Your task to perform on an android device: change notifications settings Image 0: 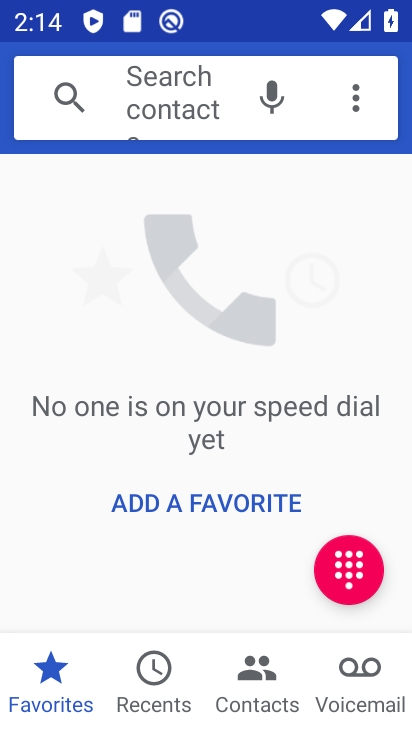
Step 0: press back button
Your task to perform on an android device: change notifications settings Image 1: 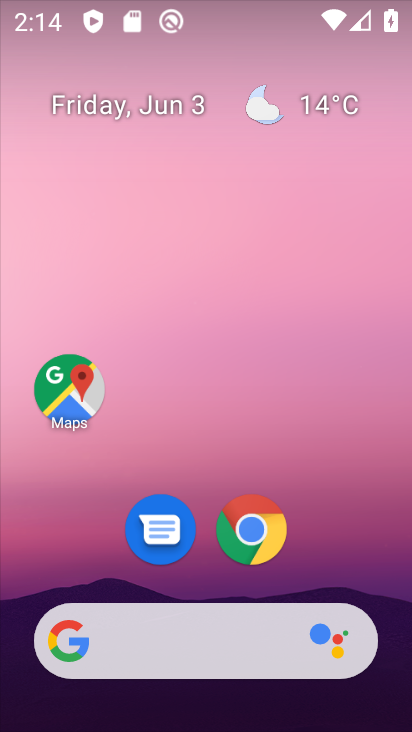
Step 1: drag from (250, 696) to (155, 22)
Your task to perform on an android device: change notifications settings Image 2: 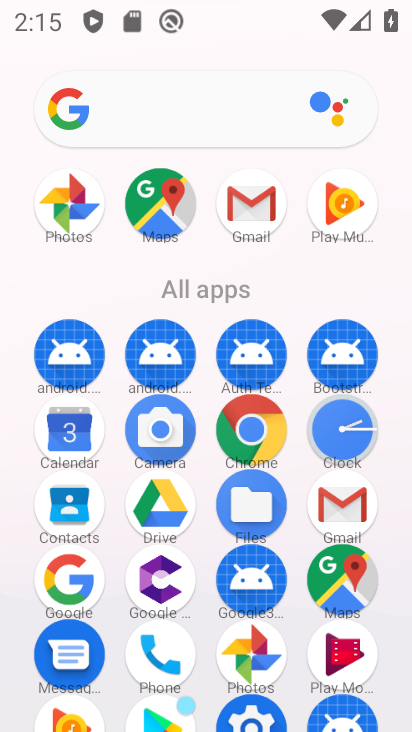
Step 2: drag from (222, 587) to (212, 241)
Your task to perform on an android device: change notifications settings Image 3: 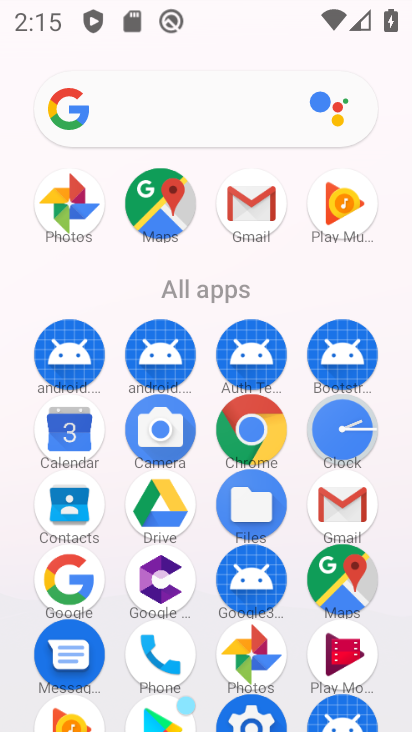
Step 3: drag from (218, 459) to (205, 187)
Your task to perform on an android device: change notifications settings Image 4: 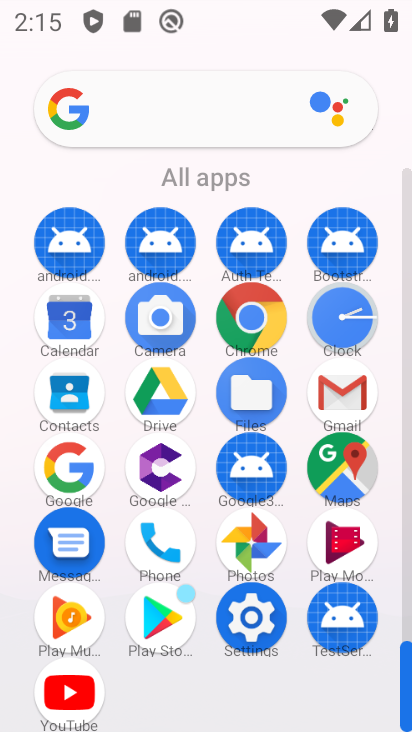
Step 4: click (239, 614)
Your task to perform on an android device: change notifications settings Image 5: 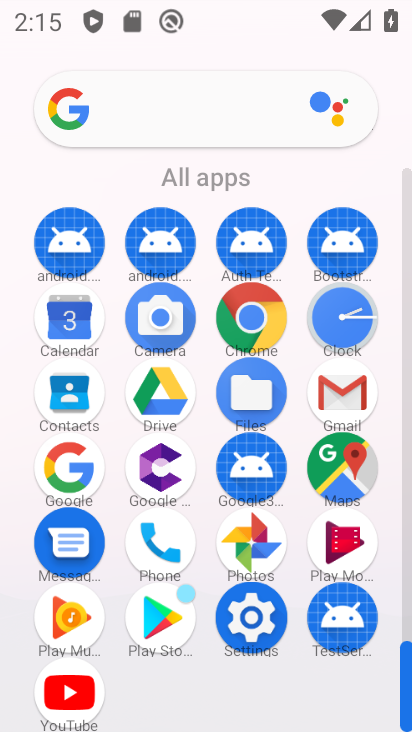
Step 5: click (239, 614)
Your task to perform on an android device: change notifications settings Image 6: 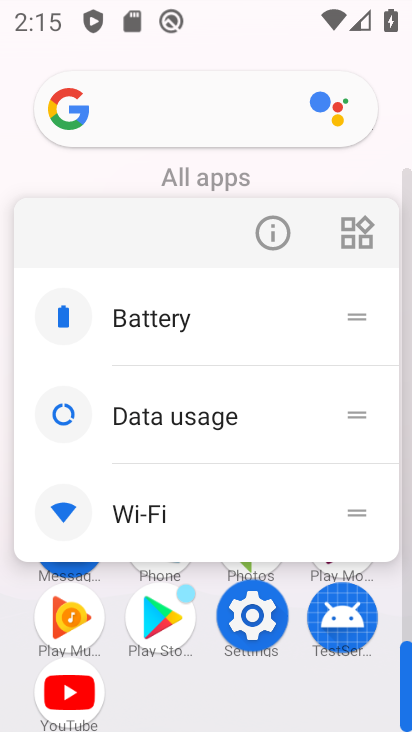
Step 6: click (252, 622)
Your task to perform on an android device: change notifications settings Image 7: 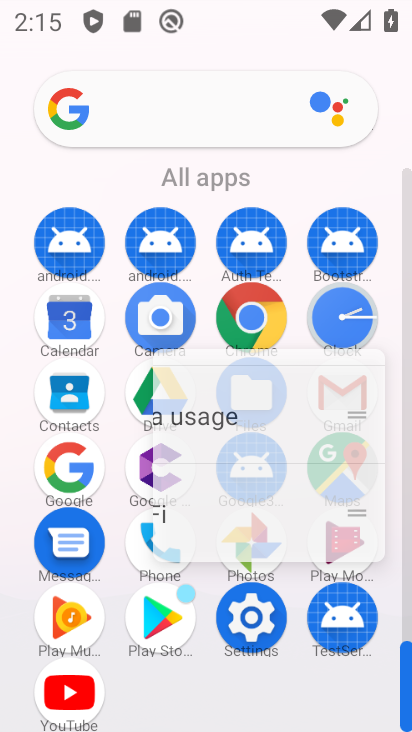
Step 7: click (252, 623)
Your task to perform on an android device: change notifications settings Image 8: 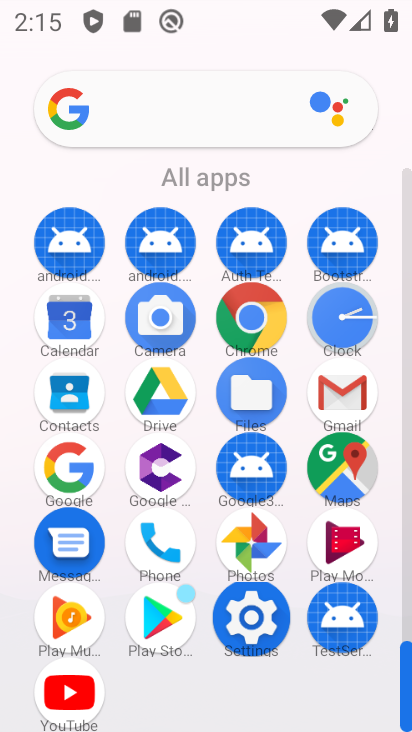
Step 8: click (253, 624)
Your task to perform on an android device: change notifications settings Image 9: 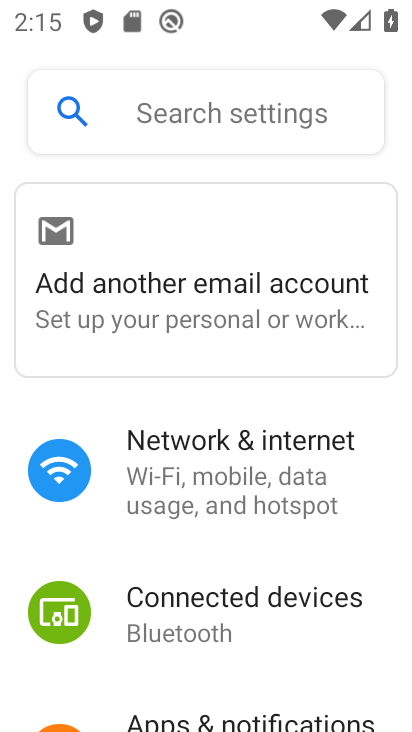
Step 9: drag from (193, 496) to (188, 264)
Your task to perform on an android device: change notifications settings Image 10: 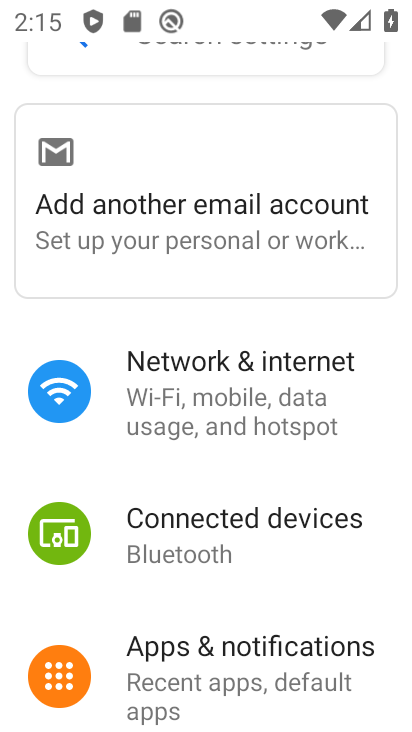
Step 10: drag from (257, 525) to (193, 122)
Your task to perform on an android device: change notifications settings Image 11: 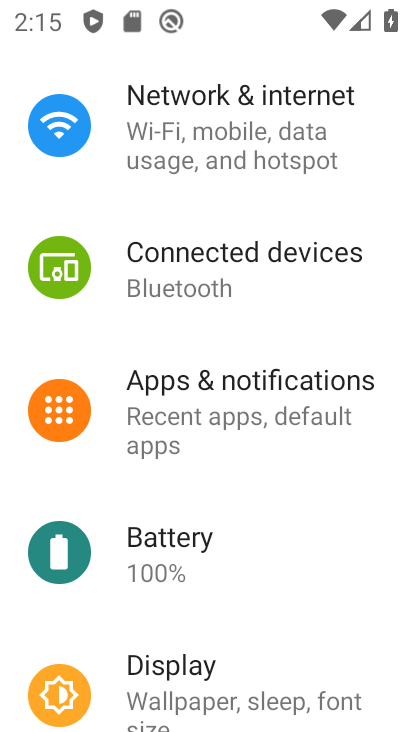
Step 11: drag from (229, 387) to (164, 75)
Your task to perform on an android device: change notifications settings Image 12: 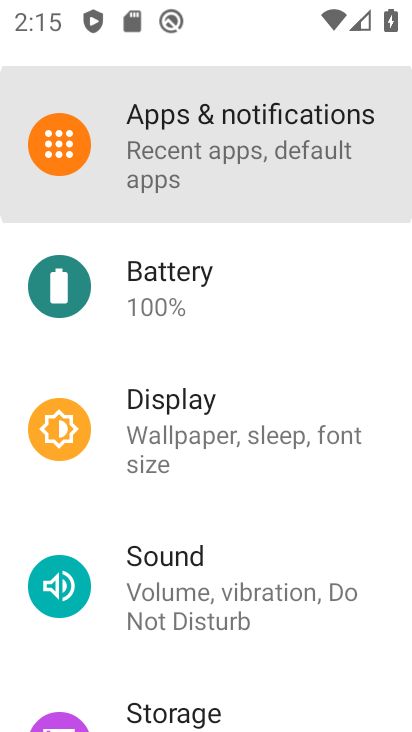
Step 12: drag from (228, 458) to (154, 94)
Your task to perform on an android device: change notifications settings Image 13: 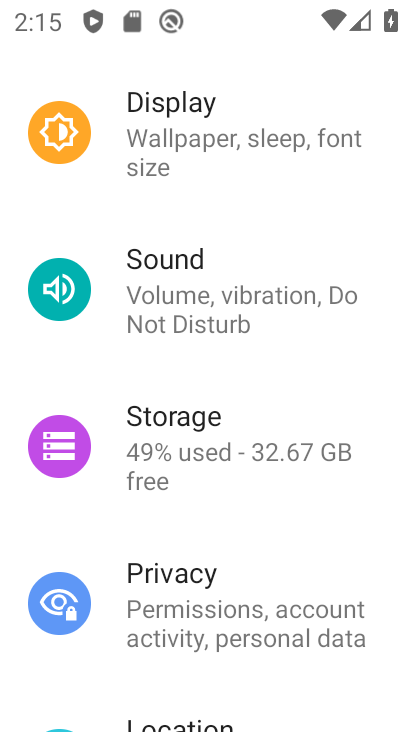
Step 13: drag from (172, 506) to (141, 107)
Your task to perform on an android device: change notifications settings Image 14: 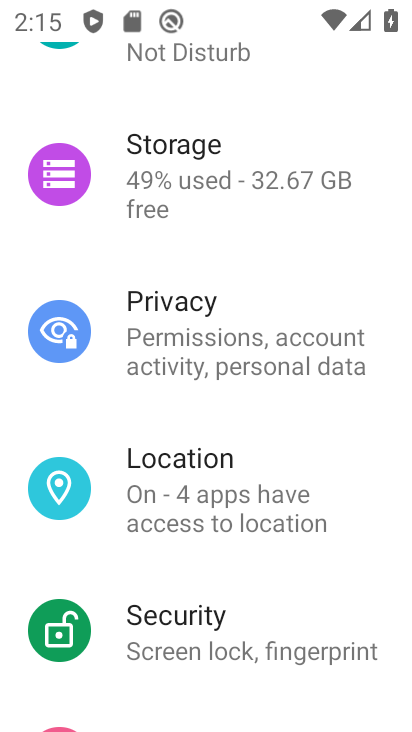
Step 14: drag from (227, 454) to (154, 106)
Your task to perform on an android device: change notifications settings Image 15: 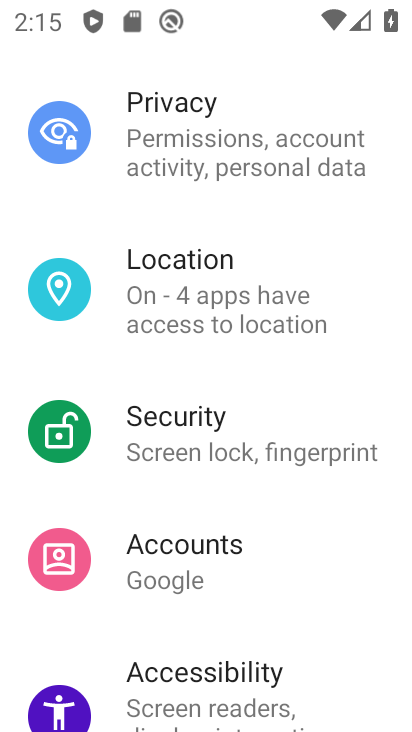
Step 15: drag from (184, 203) to (149, 24)
Your task to perform on an android device: change notifications settings Image 16: 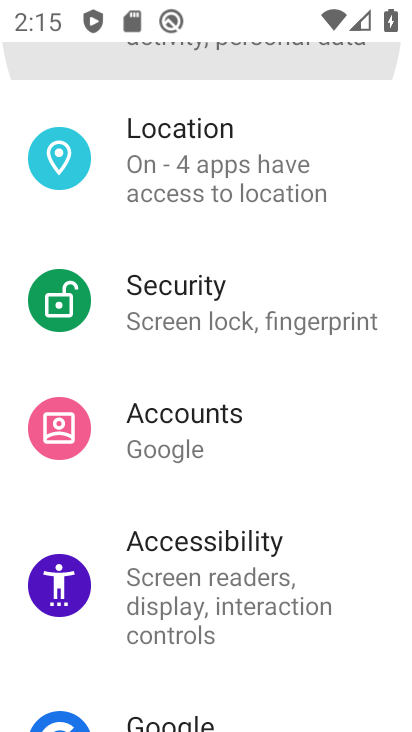
Step 16: drag from (196, 453) to (134, 166)
Your task to perform on an android device: change notifications settings Image 17: 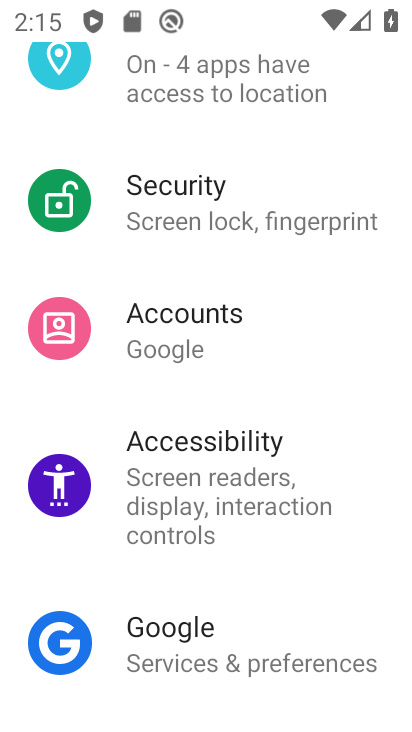
Step 17: drag from (171, 233) to (215, 390)
Your task to perform on an android device: change notifications settings Image 18: 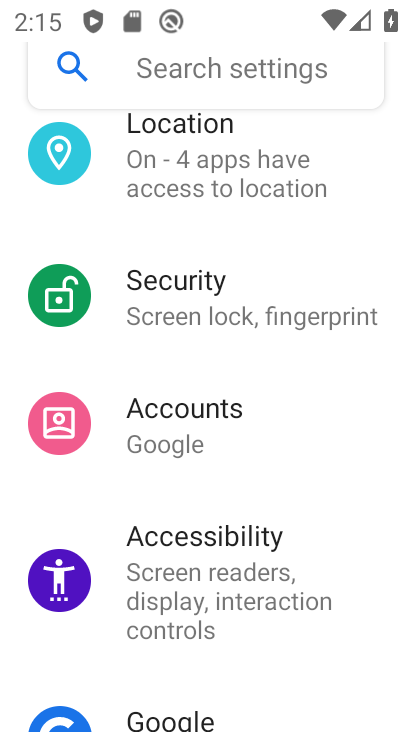
Step 18: click (200, 393)
Your task to perform on an android device: change notifications settings Image 19: 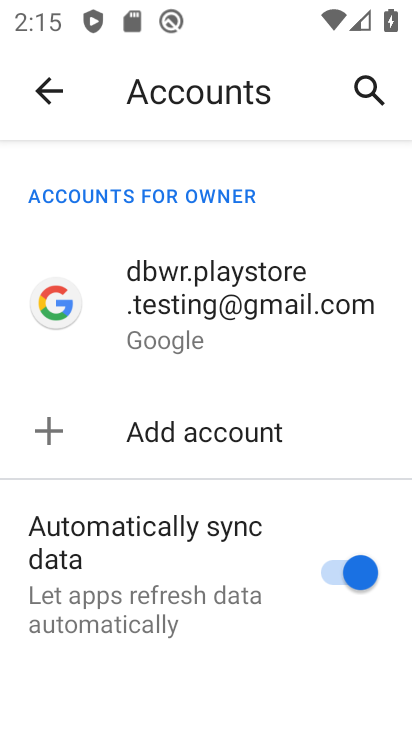
Step 19: click (27, 85)
Your task to perform on an android device: change notifications settings Image 20: 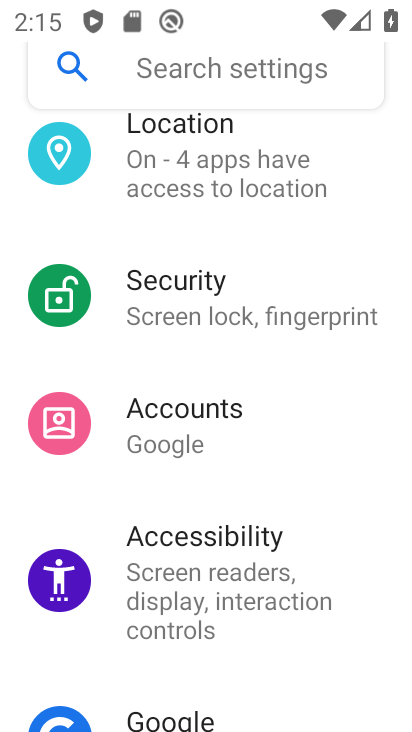
Step 20: drag from (147, 253) to (205, 558)
Your task to perform on an android device: change notifications settings Image 21: 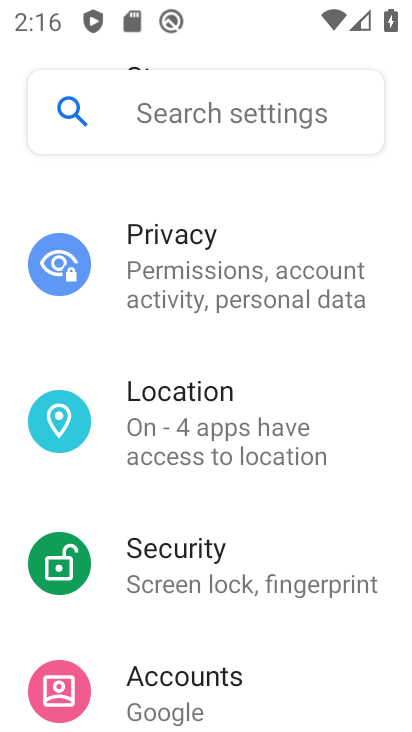
Step 21: drag from (208, 332) to (278, 605)
Your task to perform on an android device: change notifications settings Image 22: 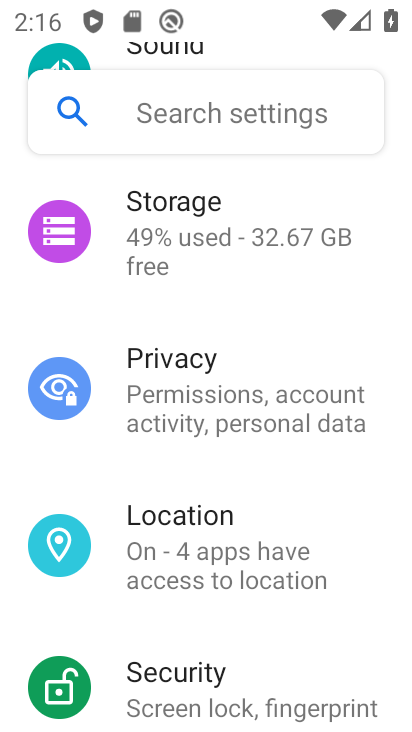
Step 22: drag from (166, 273) to (239, 566)
Your task to perform on an android device: change notifications settings Image 23: 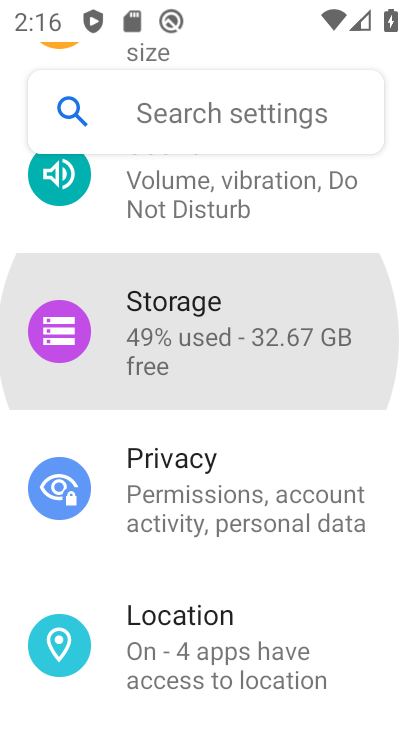
Step 23: drag from (169, 311) to (185, 544)
Your task to perform on an android device: change notifications settings Image 24: 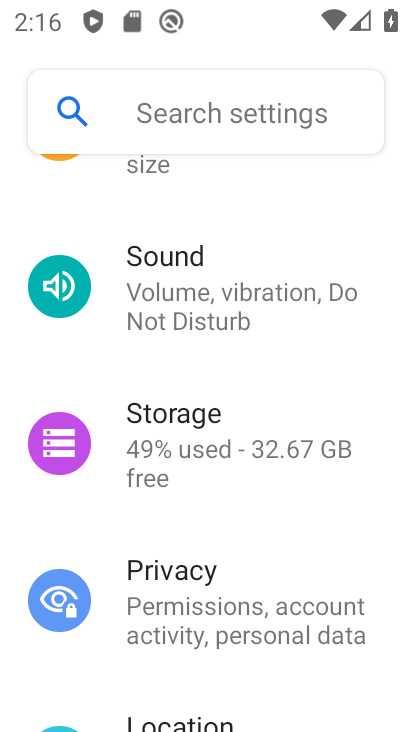
Step 24: drag from (153, 335) to (238, 628)
Your task to perform on an android device: change notifications settings Image 25: 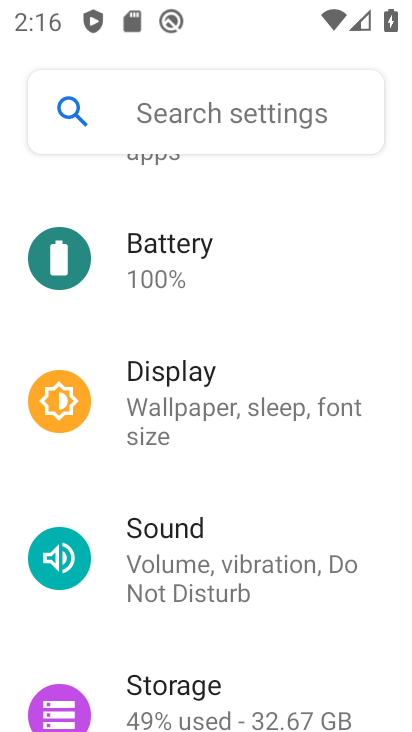
Step 25: drag from (172, 302) to (300, 622)
Your task to perform on an android device: change notifications settings Image 26: 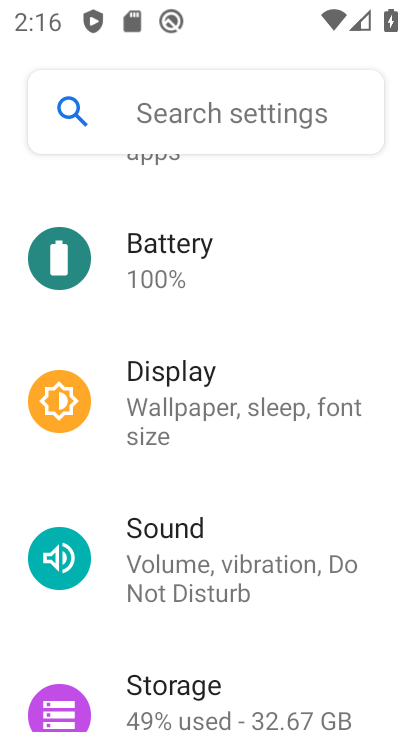
Step 26: drag from (133, 268) to (252, 611)
Your task to perform on an android device: change notifications settings Image 27: 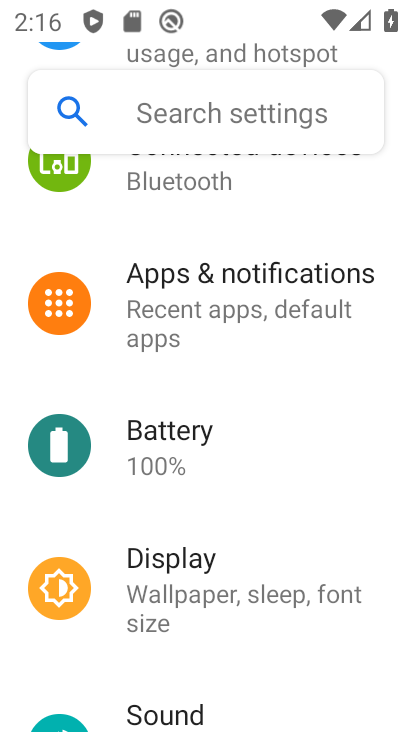
Step 27: drag from (222, 360) to (251, 659)
Your task to perform on an android device: change notifications settings Image 28: 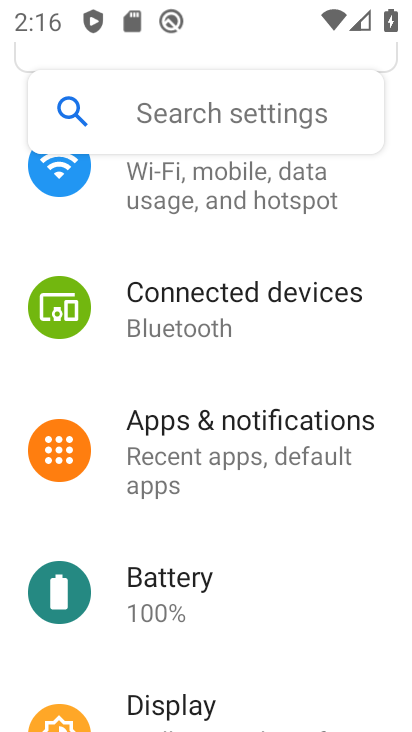
Step 28: drag from (232, 360) to (246, 551)
Your task to perform on an android device: change notifications settings Image 29: 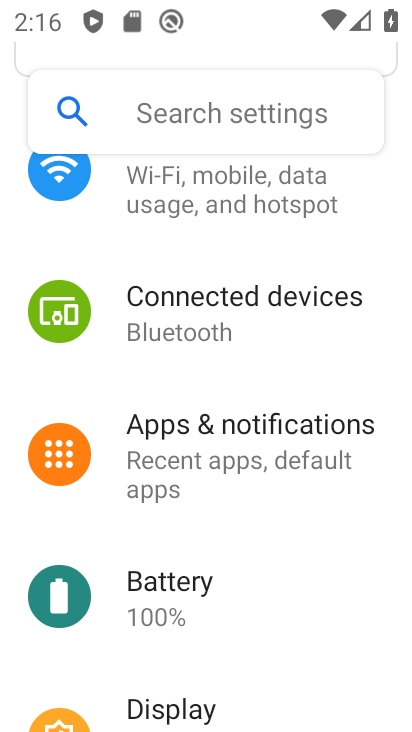
Step 29: click (215, 441)
Your task to perform on an android device: change notifications settings Image 30: 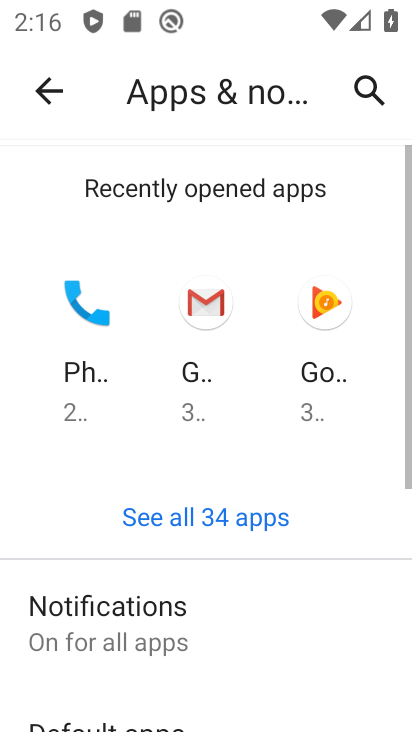
Step 30: drag from (191, 595) to (131, 146)
Your task to perform on an android device: change notifications settings Image 31: 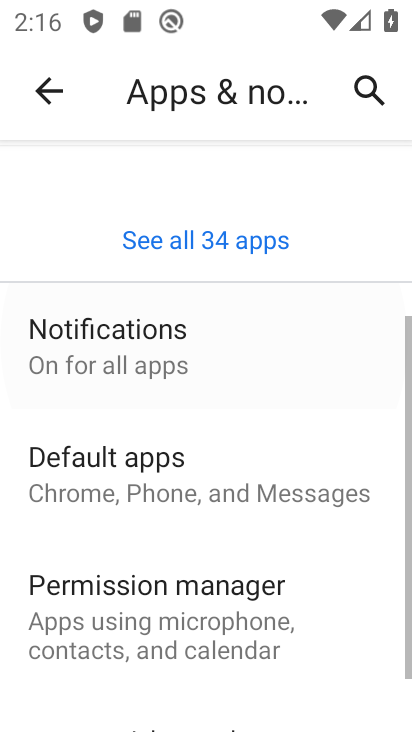
Step 31: drag from (225, 485) to (221, 157)
Your task to perform on an android device: change notifications settings Image 32: 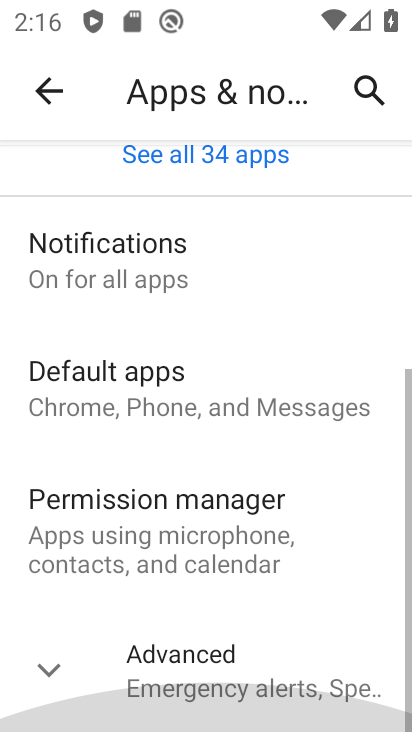
Step 32: drag from (230, 419) to (216, 171)
Your task to perform on an android device: change notifications settings Image 33: 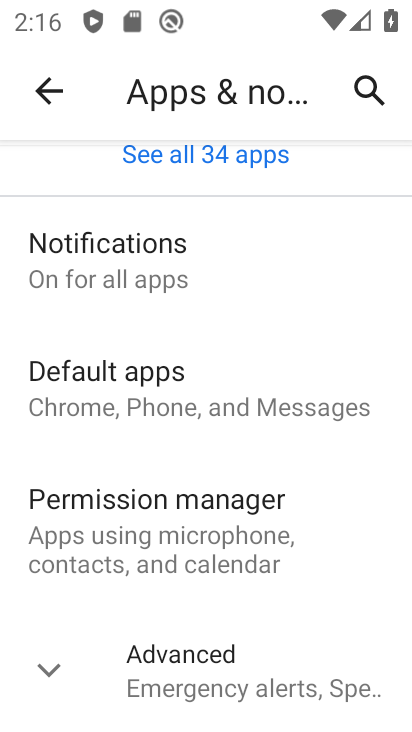
Step 33: click (192, 264)
Your task to perform on an android device: change notifications settings Image 34: 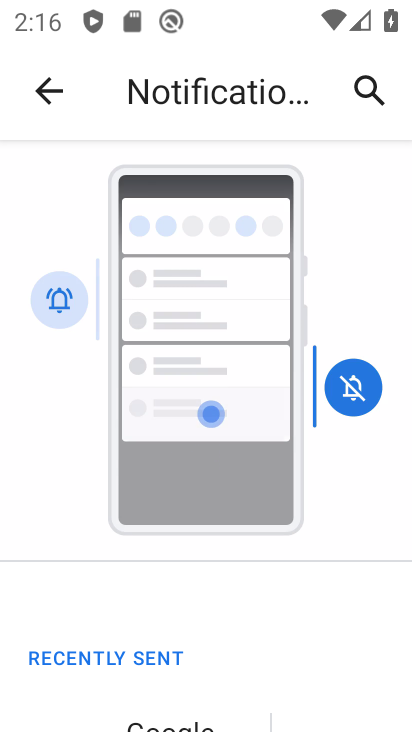
Step 34: drag from (240, 546) to (193, 155)
Your task to perform on an android device: change notifications settings Image 35: 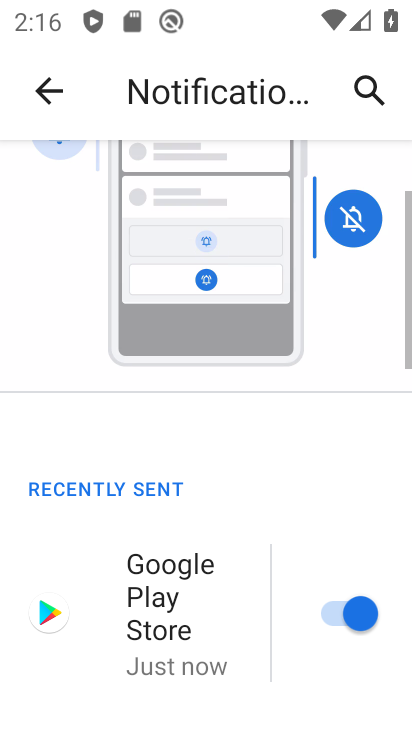
Step 35: drag from (243, 329) to (230, 121)
Your task to perform on an android device: change notifications settings Image 36: 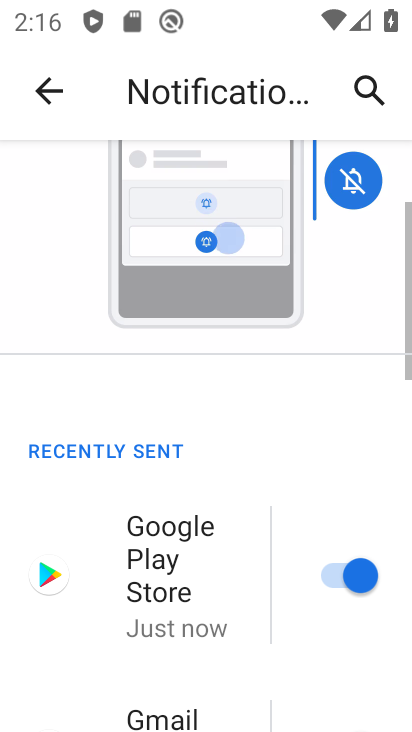
Step 36: drag from (269, 407) to (255, 200)
Your task to perform on an android device: change notifications settings Image 37: 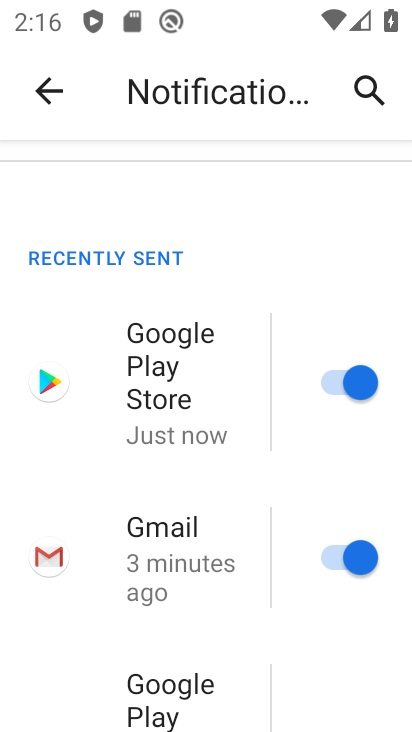
Step 37: click (360, 377)
Your task to perform on an android device: change notifications settings Image 38: 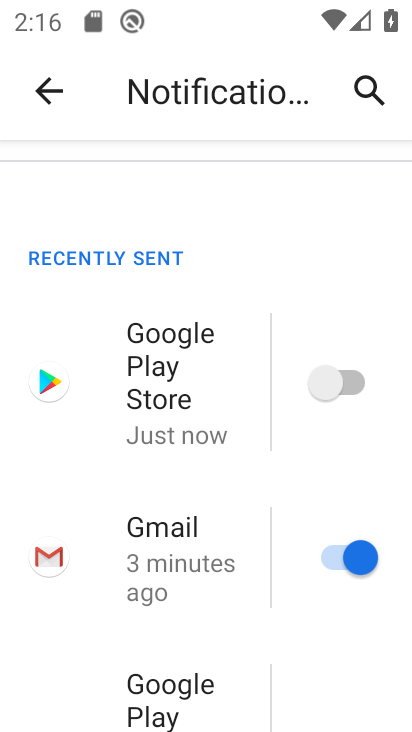
Step 38: click (356, 555)
Your task to perform on an android device: change notifications settings Image 39: 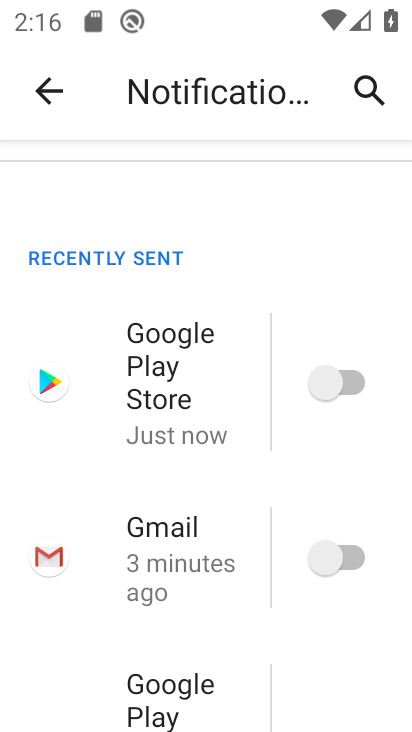
Step 39: drag from (304, 572) to (257, 261)
Your task to perform on an android device: change notifications settings Image 40: 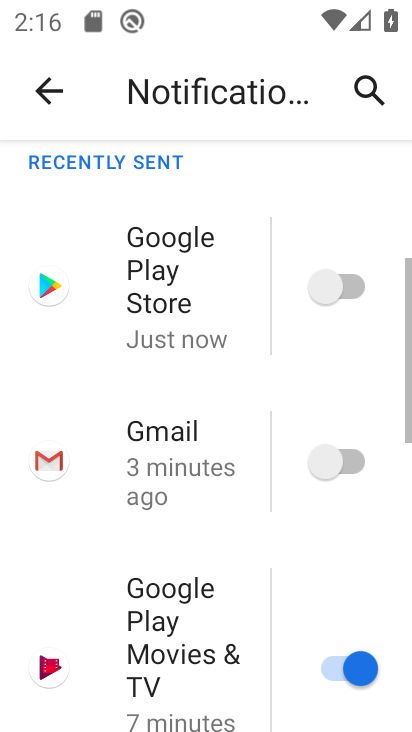
Step 40: drag from (311, 531) to (324, 203)
Your task to perform on an android device: change notifications settings Image 41: 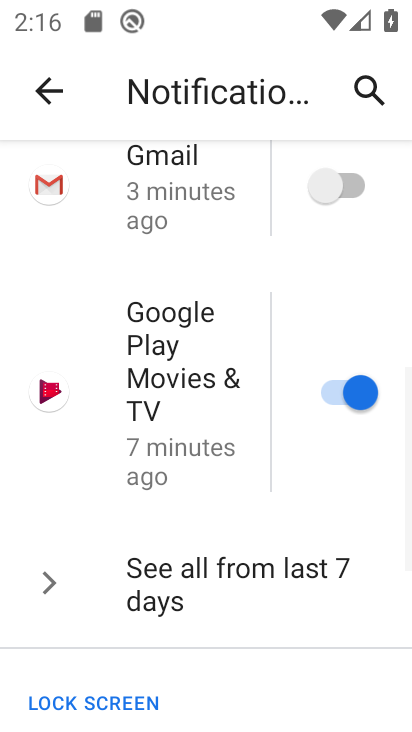
Step 41: click (360, 654)
Your task to perform on an android device: change notifications settings Image 42: 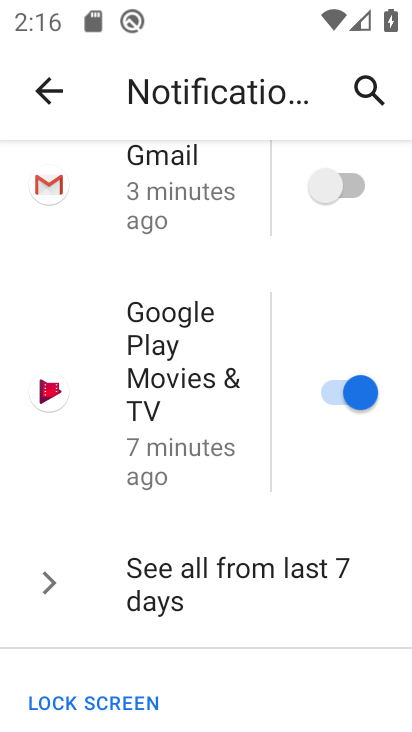
Step 42: click (355, 389)
Your task to perform on an android device: change notifications settings Image 43: 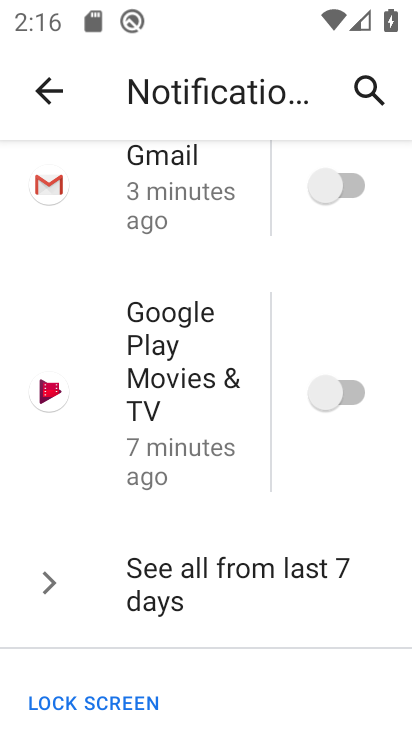
Step 43: task complete